Your task to perform on an android device: Toggle the flashlight Image 0: 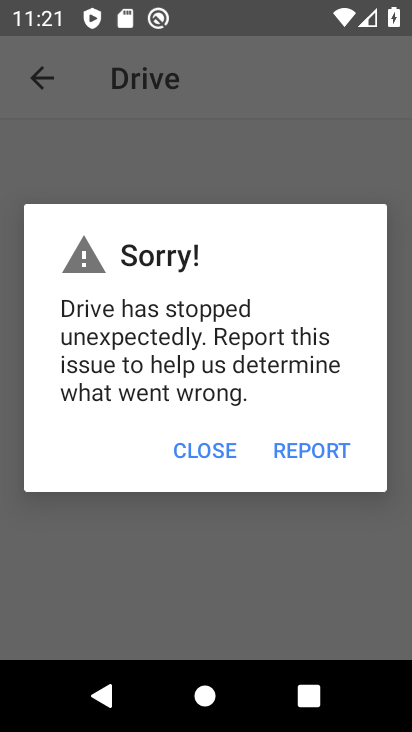
Step 0: press back button
Your task to perform on an android device: Toggle the flashlight Image 1: 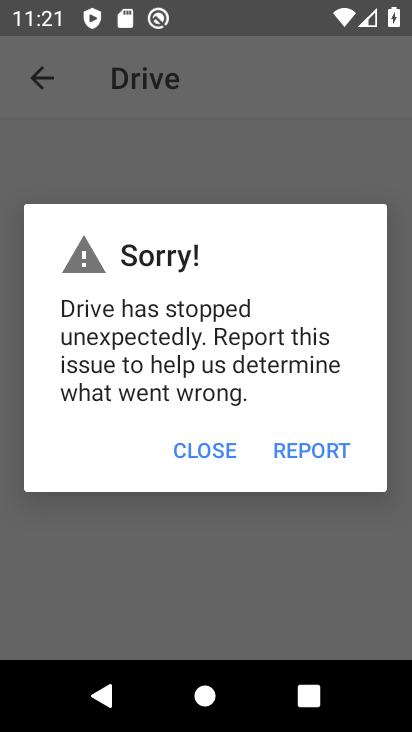
Step 1: click (184, 448)
Your task to perform on an android device: Toggle the flashlight Image 2: 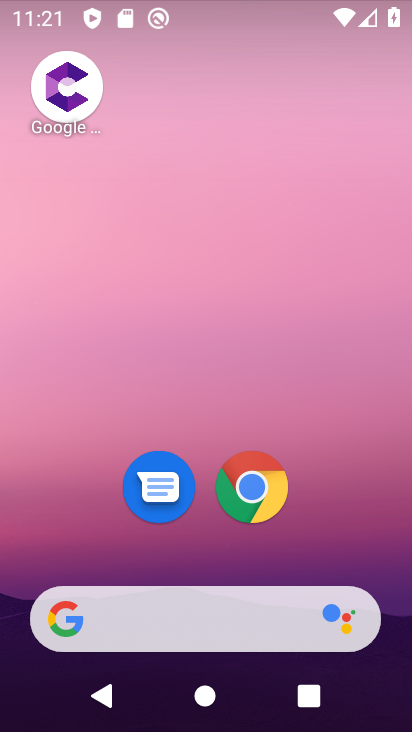
Step 2: drag from (244, 584) to (296, 76)
Your task to perform on an android device: Toggle the flashlight Image 3: 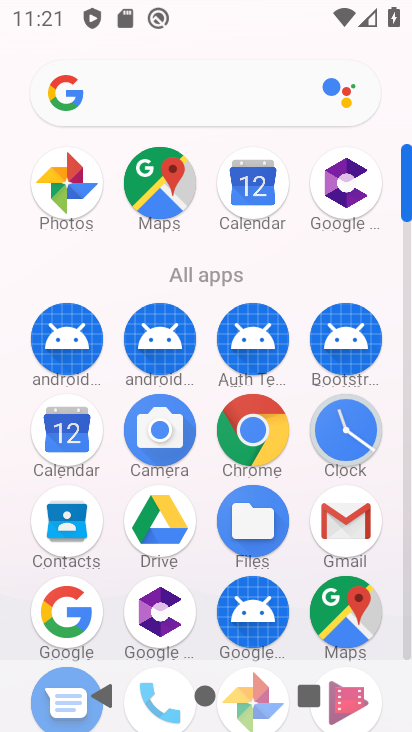
Step 3: drag from (183, 685) to (330, 100)
Your task to perform on an android device: Toggle the flashlight Image 4: 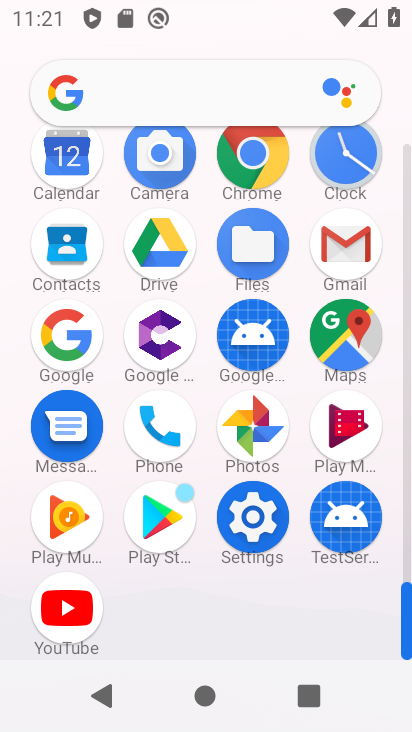
Step 4: click (254, 536)
Your task to perform on an android device: Toggle the flashlight Image 5: 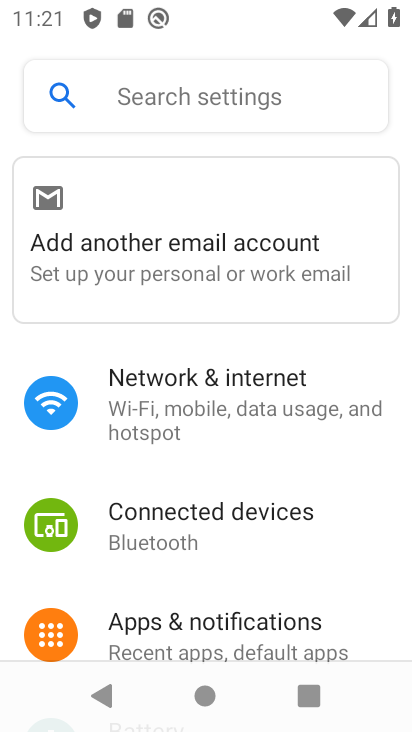
Step 5: click (144, 95)
Your task to perform on an android device: Toggle the flashlight Image 6: 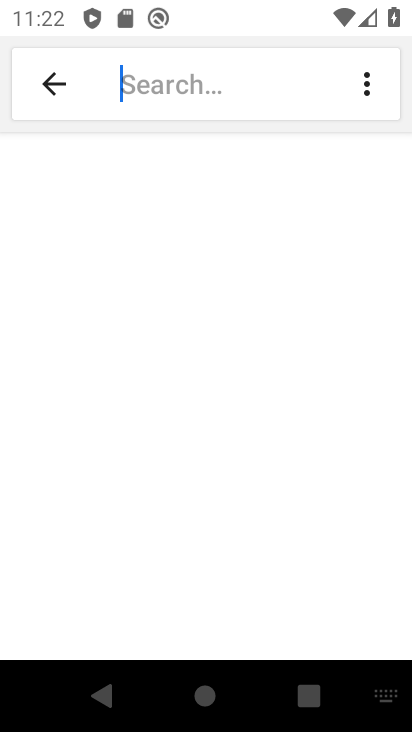
Step 6: type "flashlight"
Your task to perform on an android device: Toggle the flashlight Image 7: 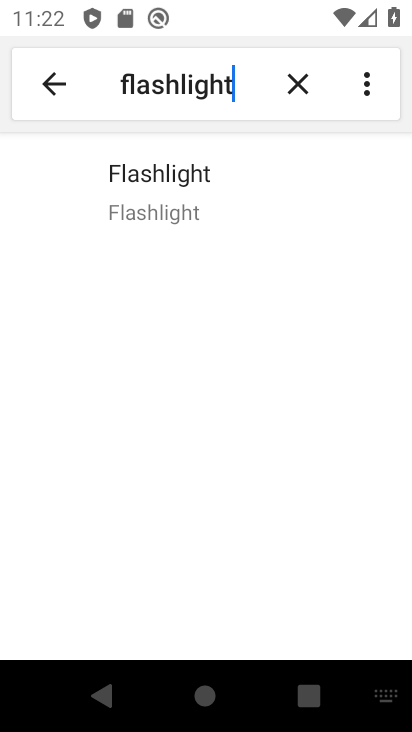
Step 7: click (165, 173)
Your task to perform on an android device: Toggle the flashlight Image 8: 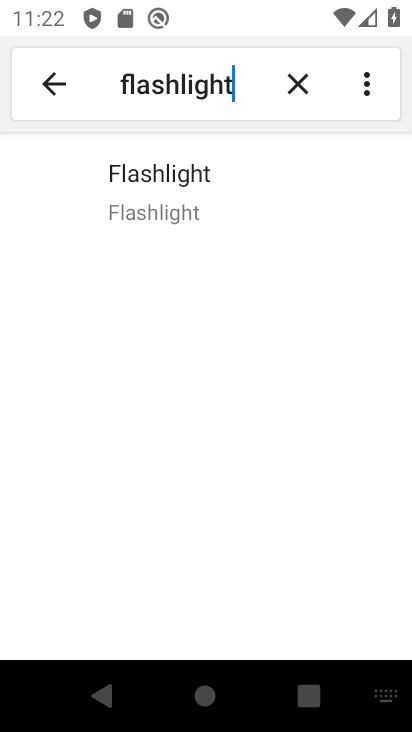
Step 8: click (146, 157)
Your task to perform on an android device: Toggle the flashlight Image 9: 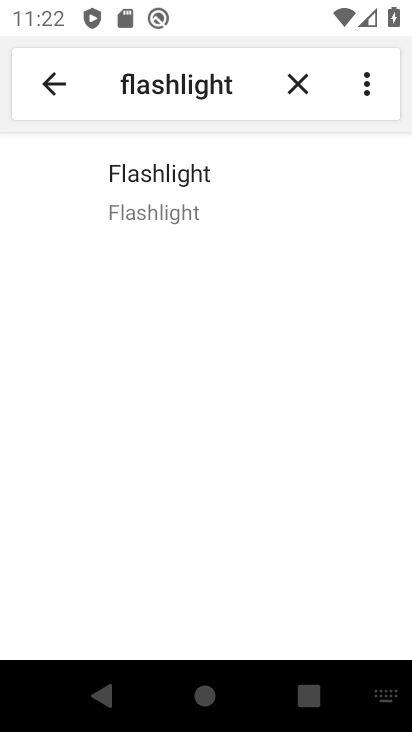
Step 9: task complete